Your task to perform on an android device: Open Google Chrome Image 0: 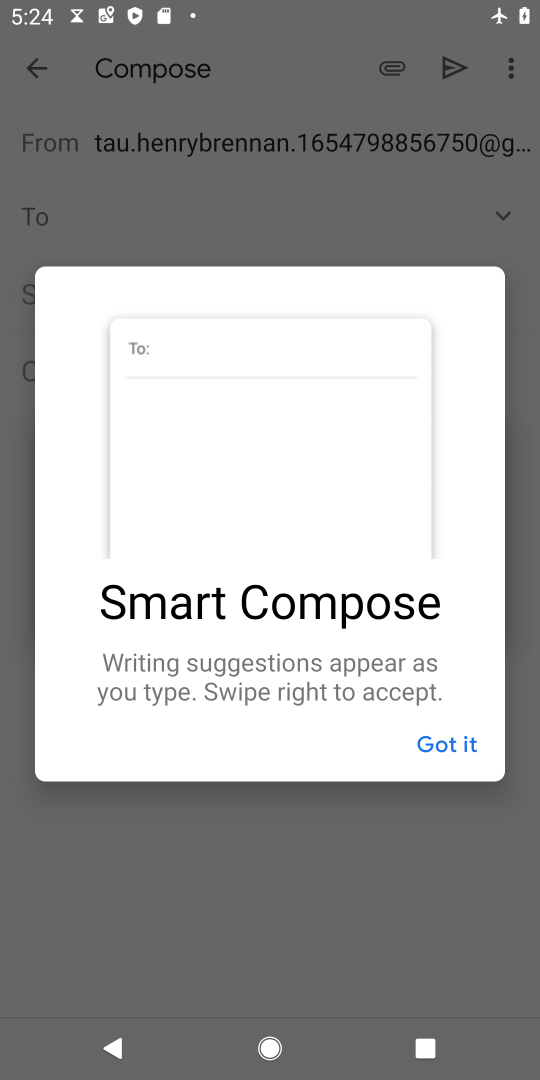
Step 0: press home button
Your task to perform on an android device: Open Google Chrome Image 1: 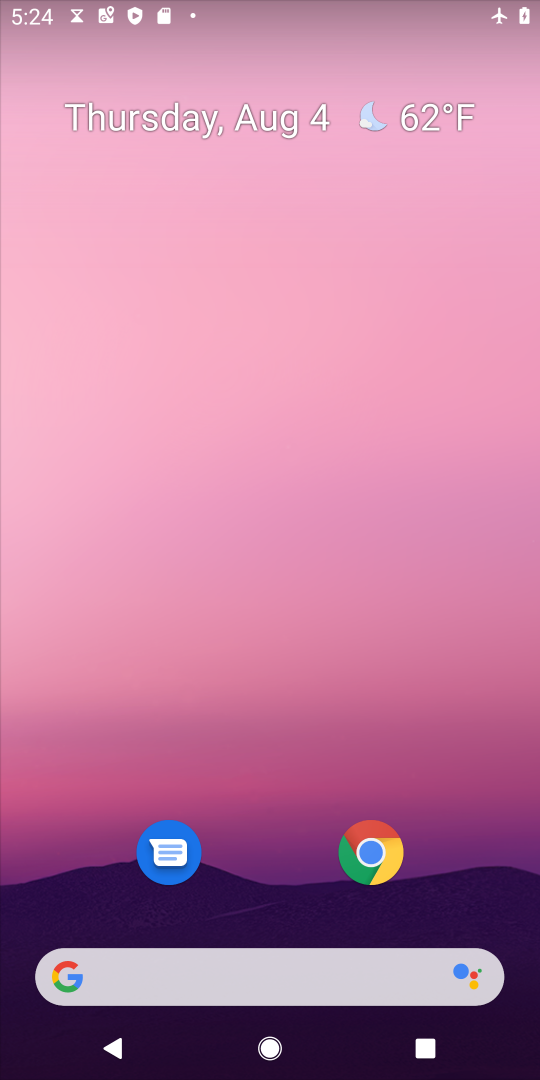
Step 1: click (368, 849)
Your task to perform on an android device: Open Google Chrome Image 2: 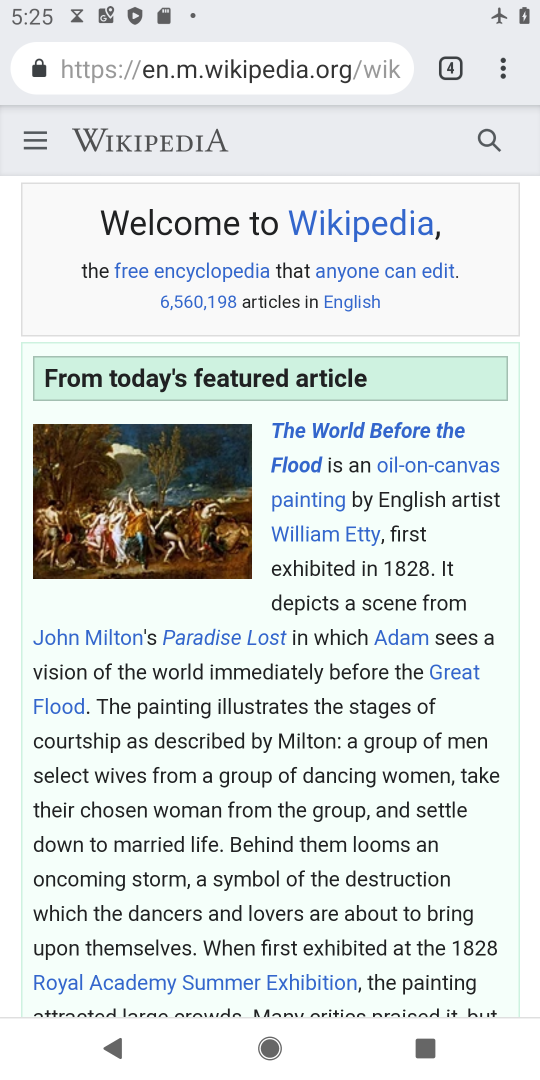
Step 2: task complete